Your task to perform on an android device: turn off picture-in-picture Image 0: 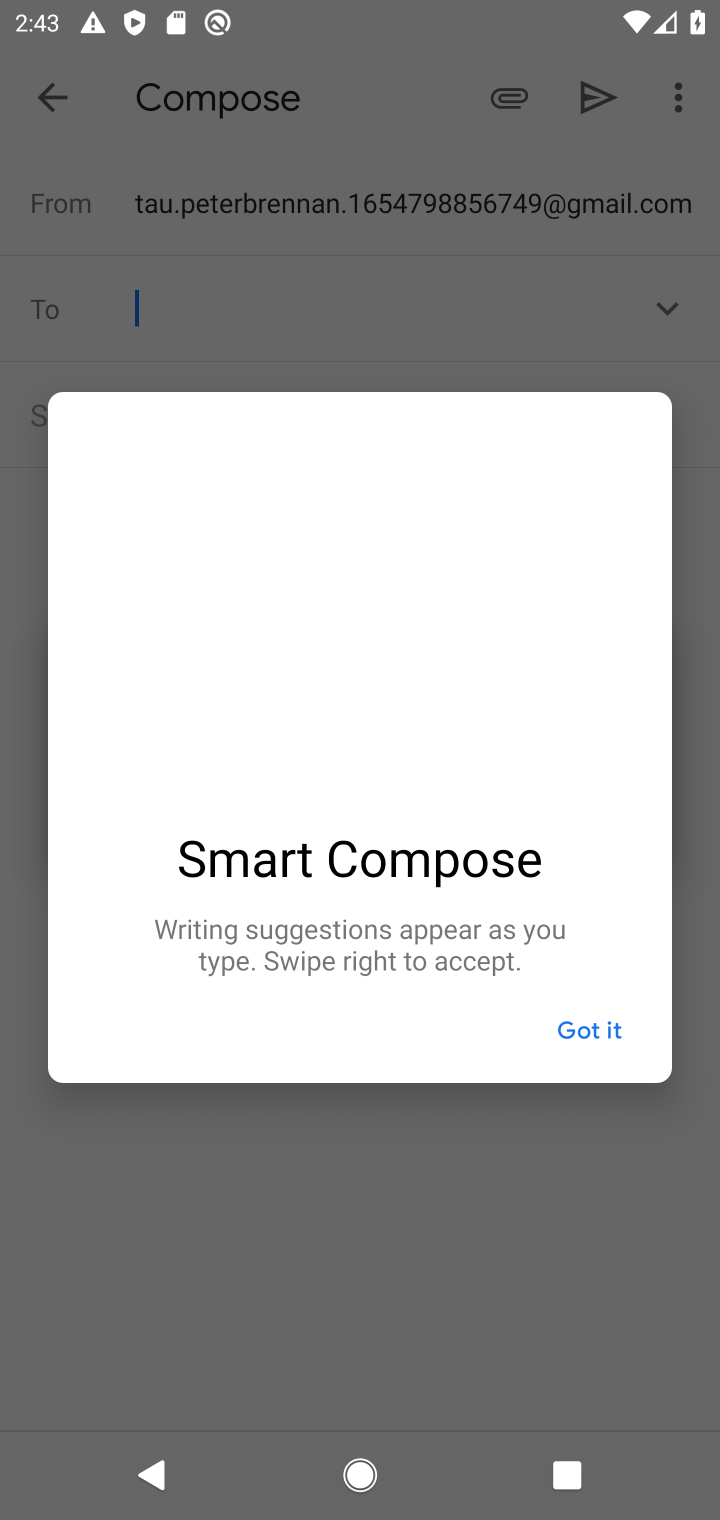
Step 0: press home button
Your task to perform on an android device: turn off picture-in-picture Image 1: 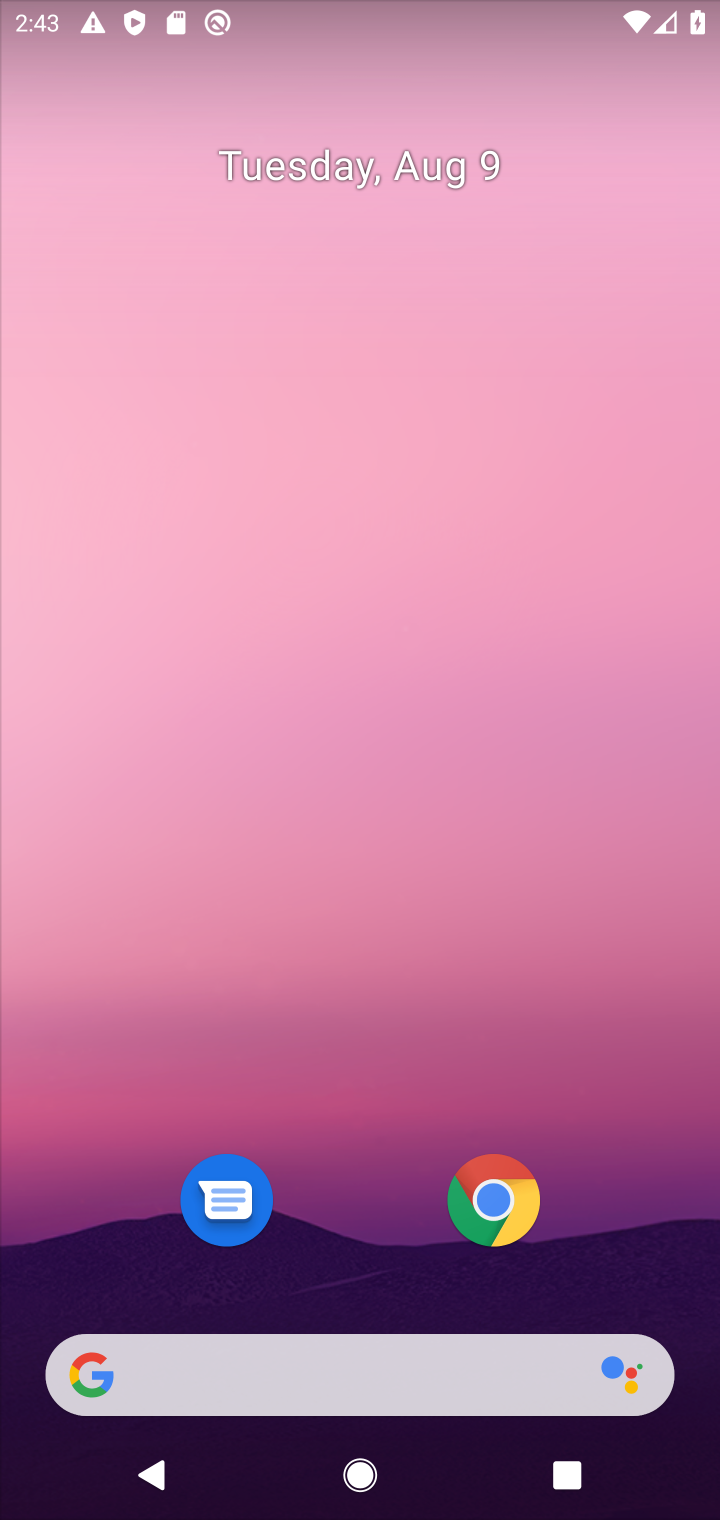
Step 1: press back button
Your task to perform on an android device: turn off picture-in-picture Image 2: 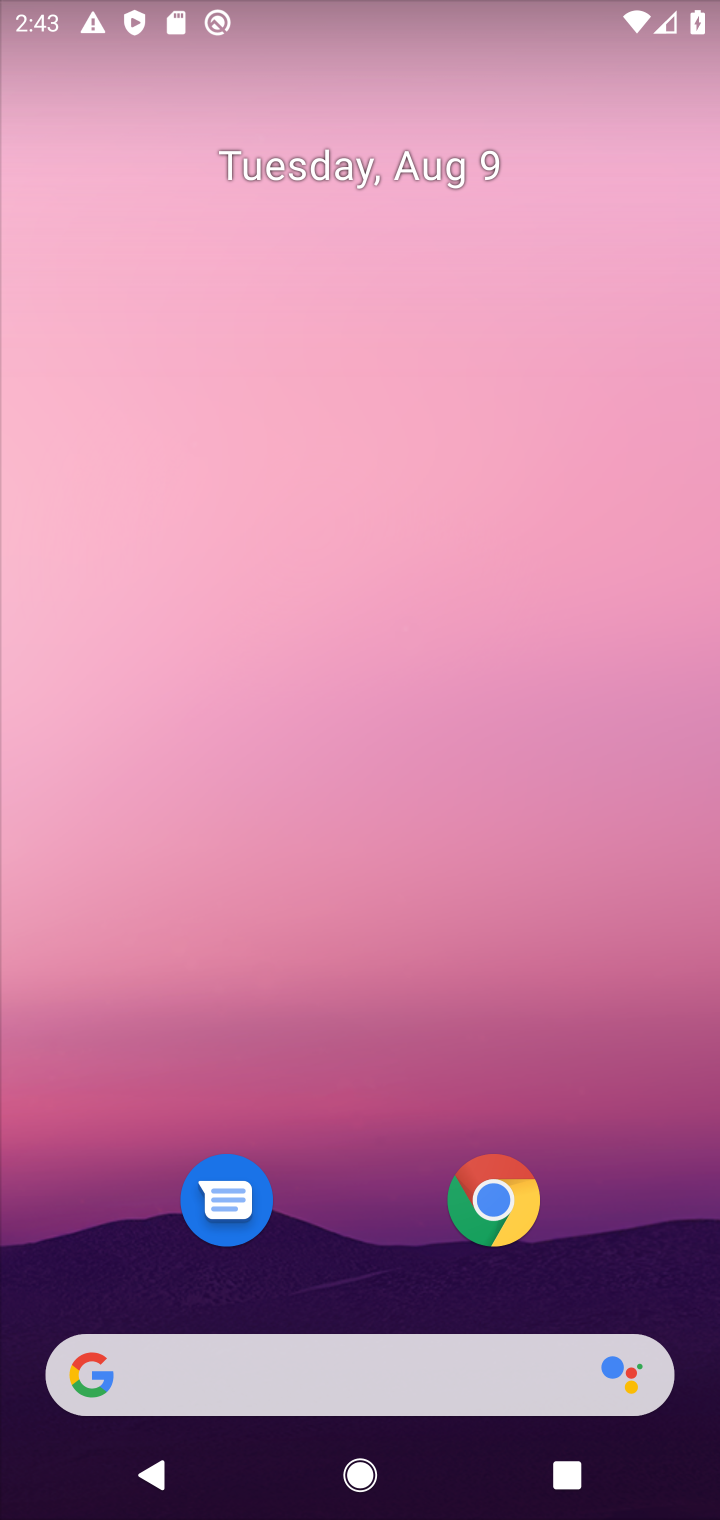
Step 2: drag from (340, 1328) to (96, 170)
Your task to perform on an android device: turn off picture-in-picture Image 3: 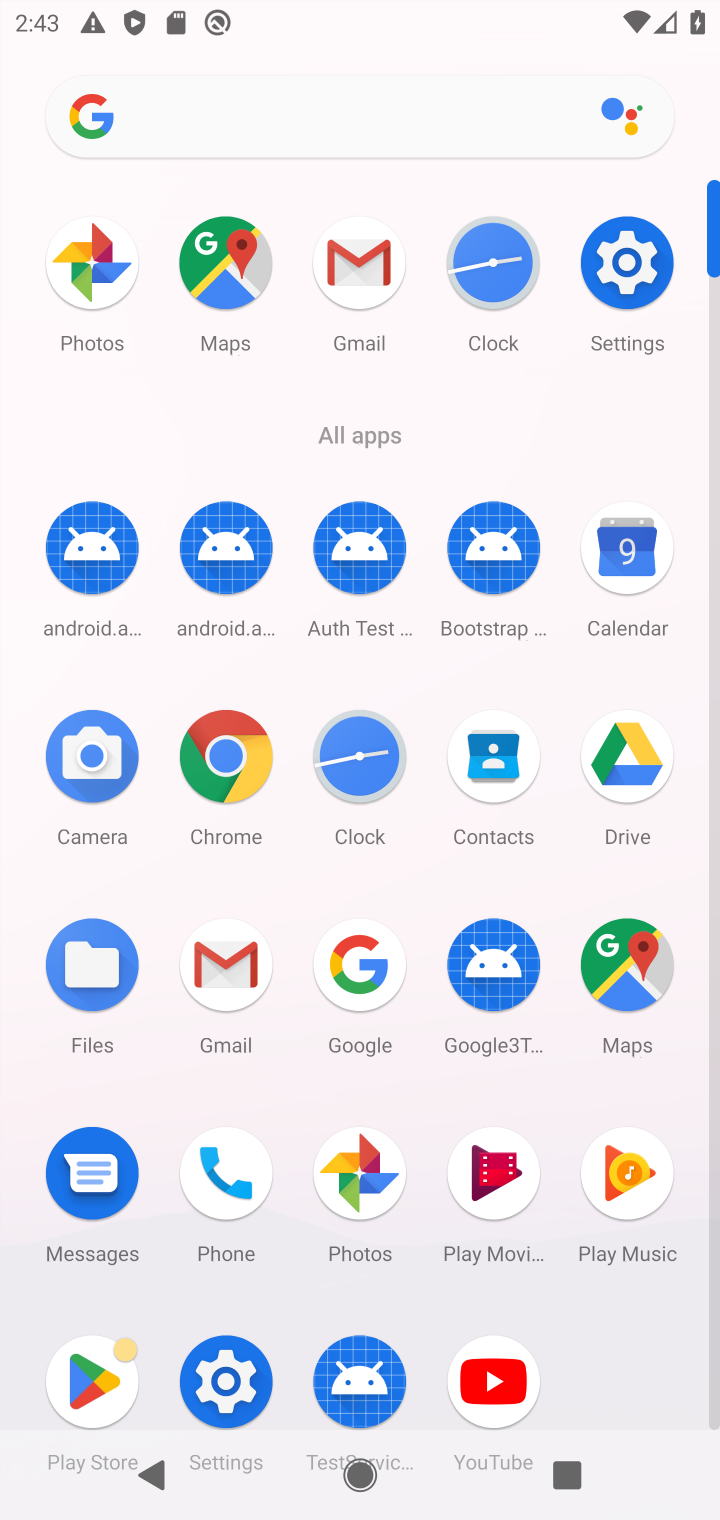
Step 3: click (638, 257)
Your task to perform on an android device: turn off picture-in-picture Image 4: 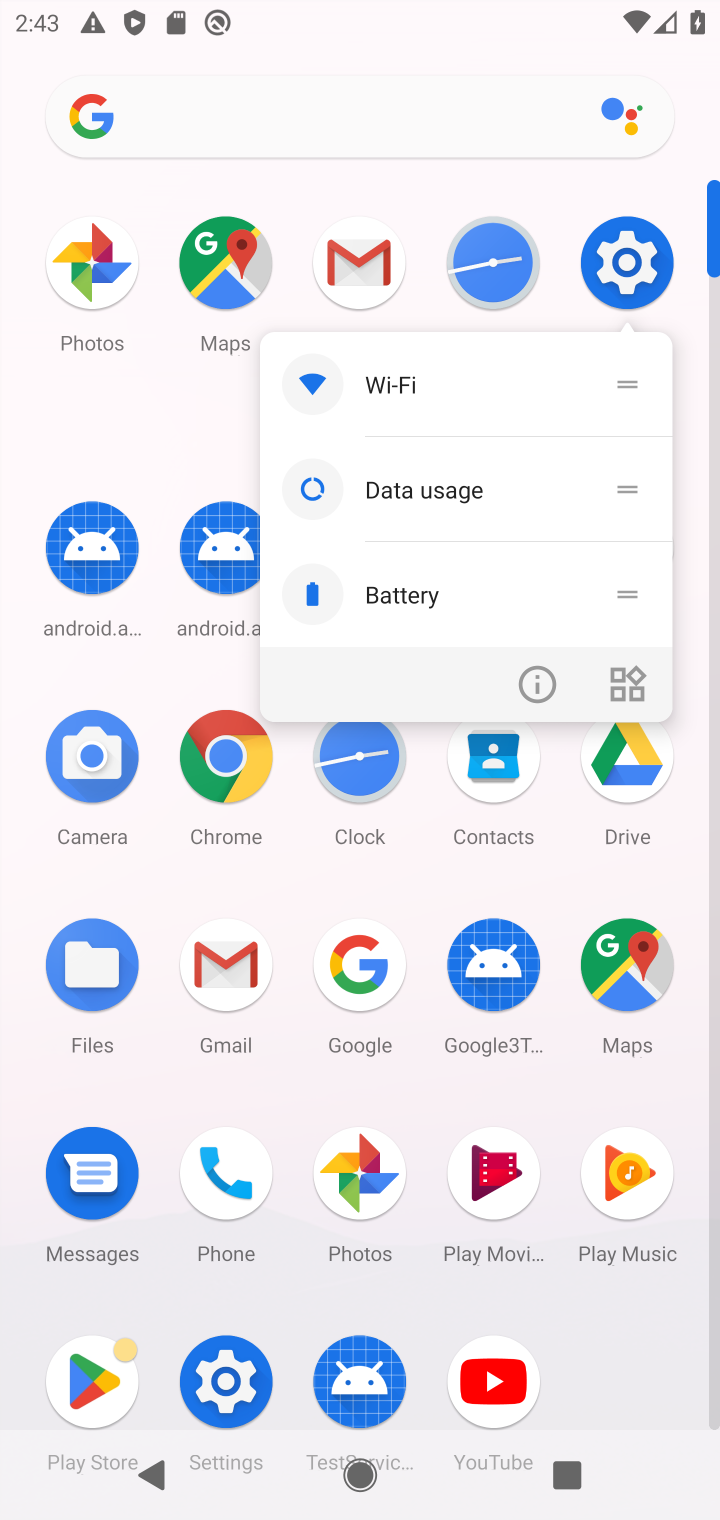
Step 4: click (647, 294)
Your task to perform on an android device: turn off picture-in-picture Image 5: 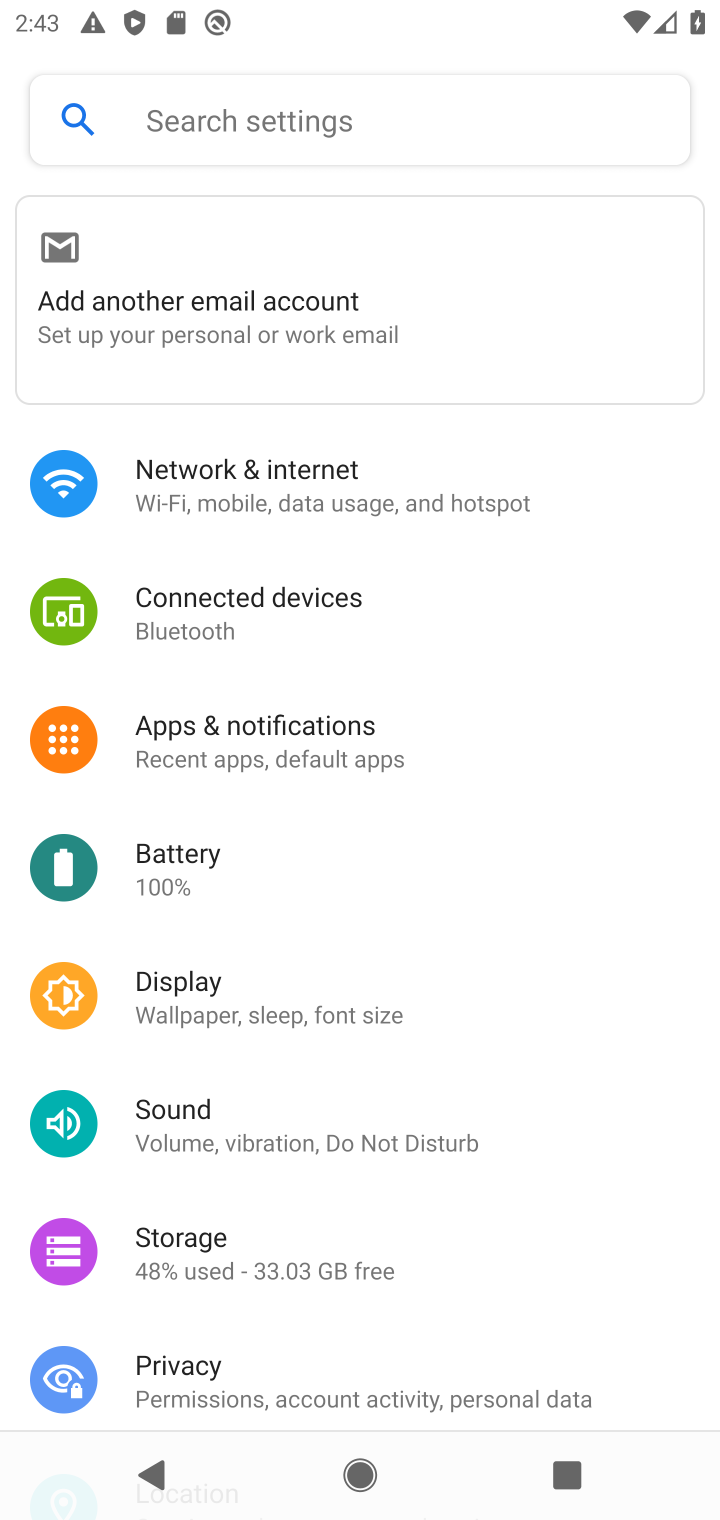
Step 5: click (166, 717)
Your task to perform on an android device: turn off picture-in-picture Image 6: 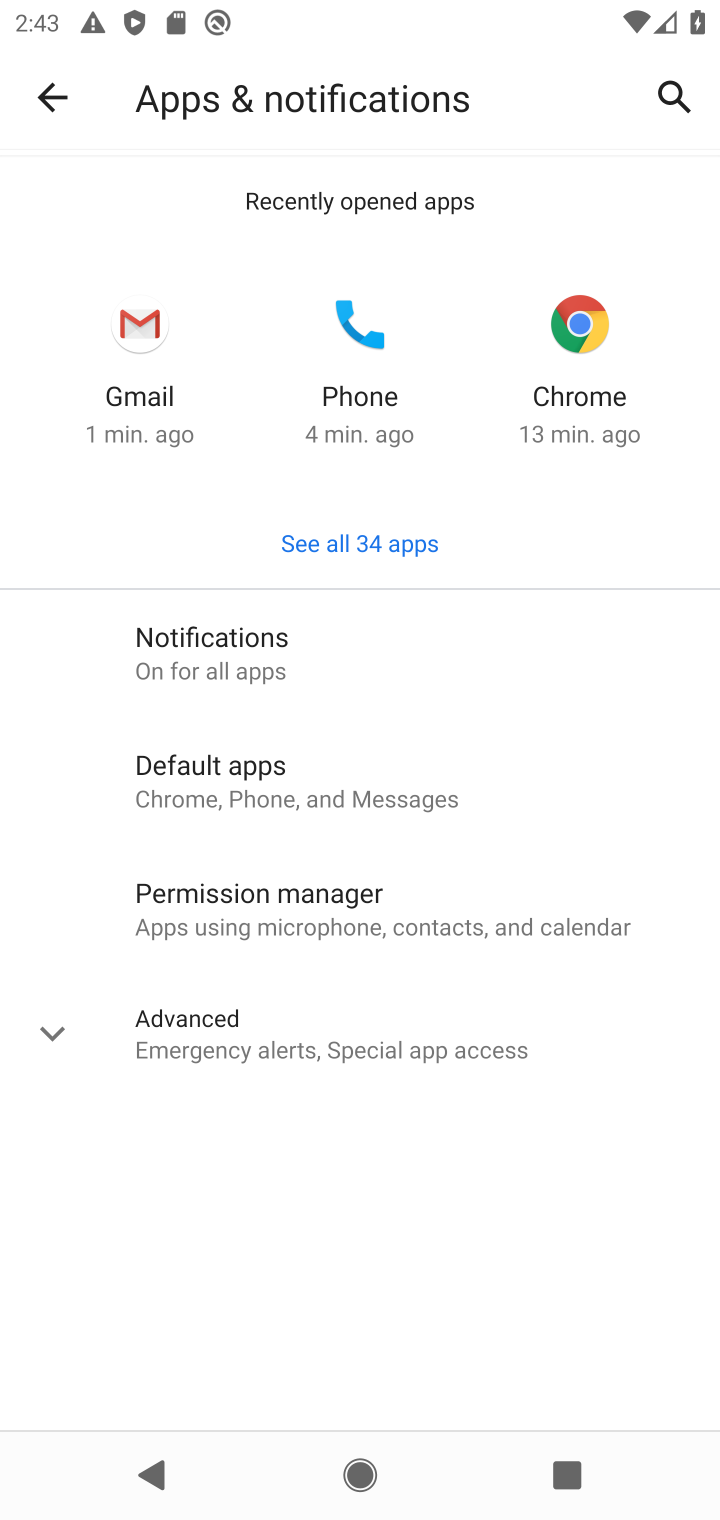
Step 6: click (224, 1037)
Your task to perform on an android device: turn off picture-in-picture Image 7: 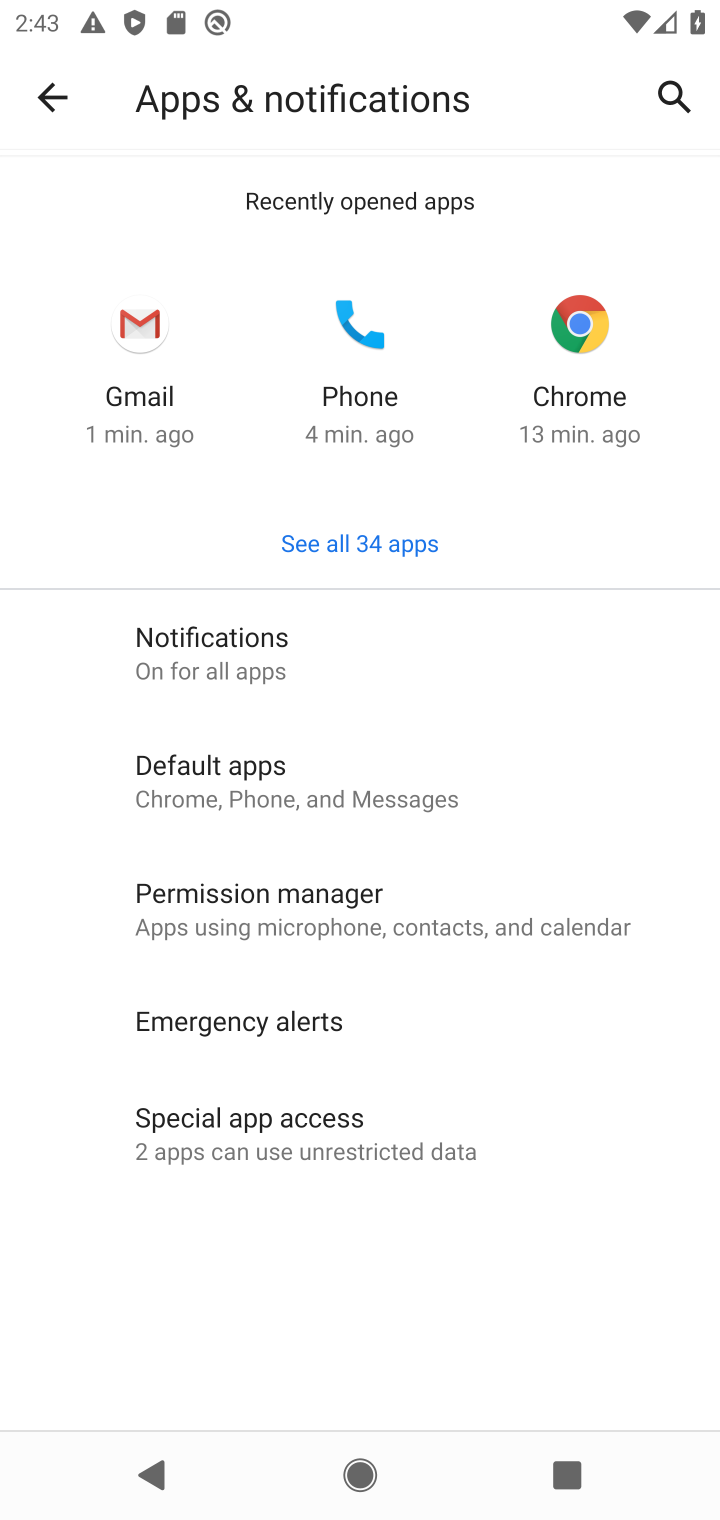
Step 7: click (275, 1119)
Your task to perform on an android device: turn off picture-in-picture Image 8: 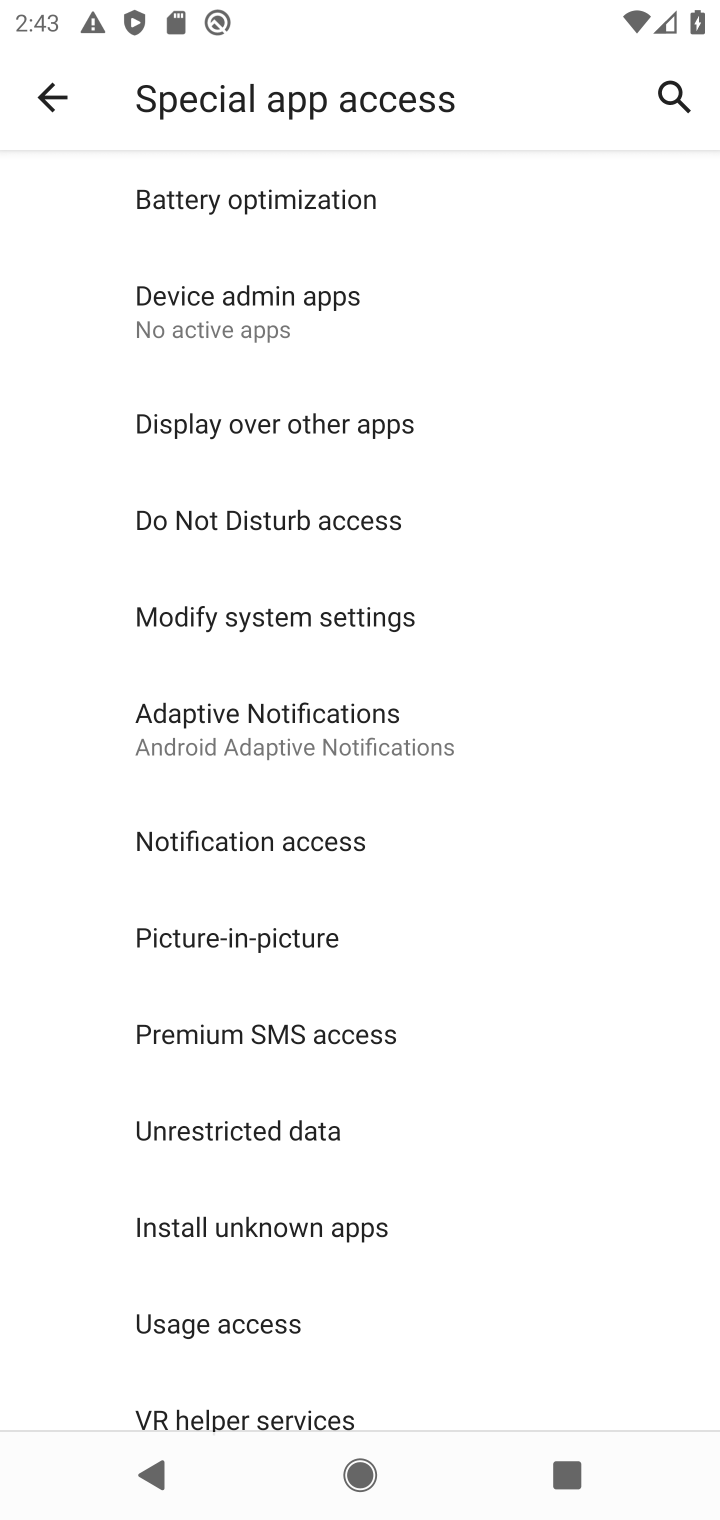
Step 8: click (265, 1056)
Your task to perform on an android device: turn off picture-in-picture Image 9: 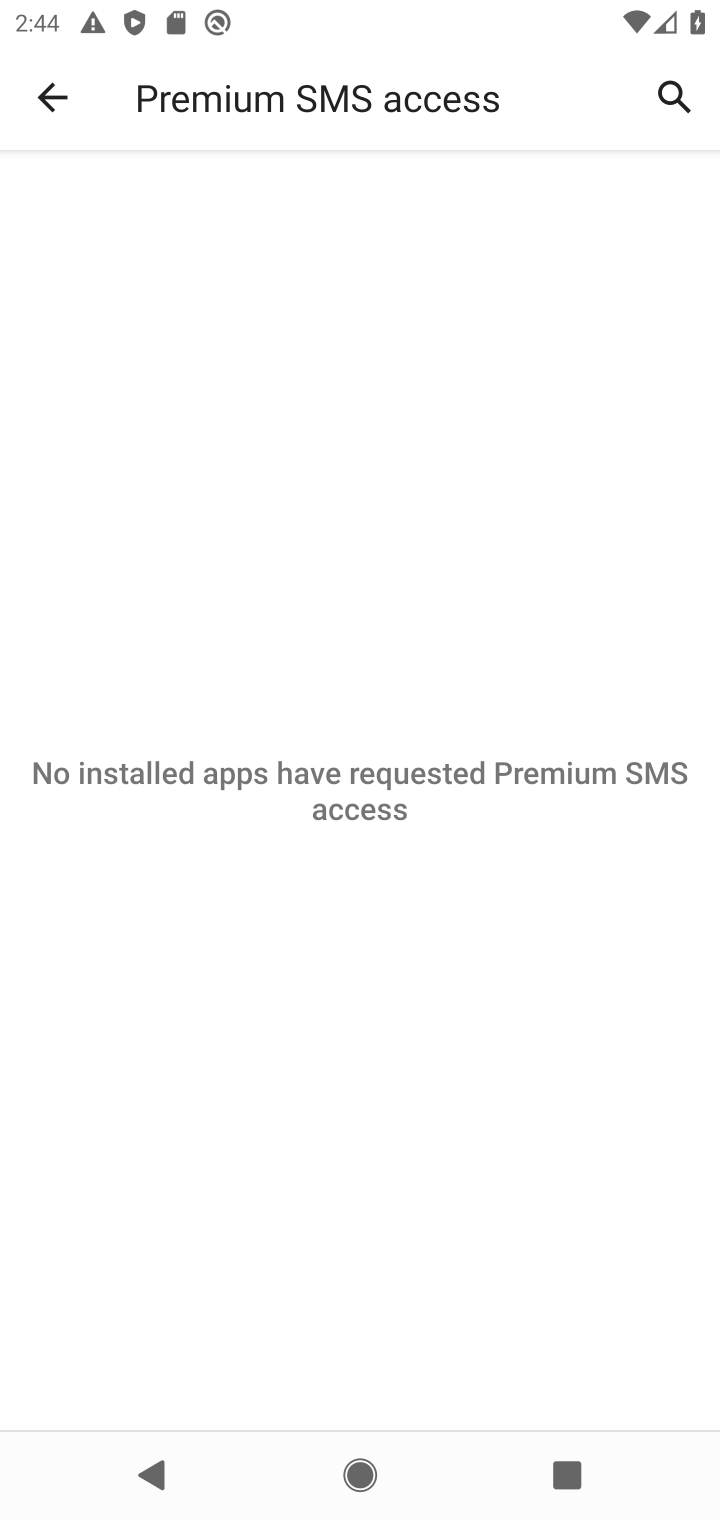
Step 9: task complete